Your task to perform on an android device: turn off notifications settings in the gmail app Image 0: 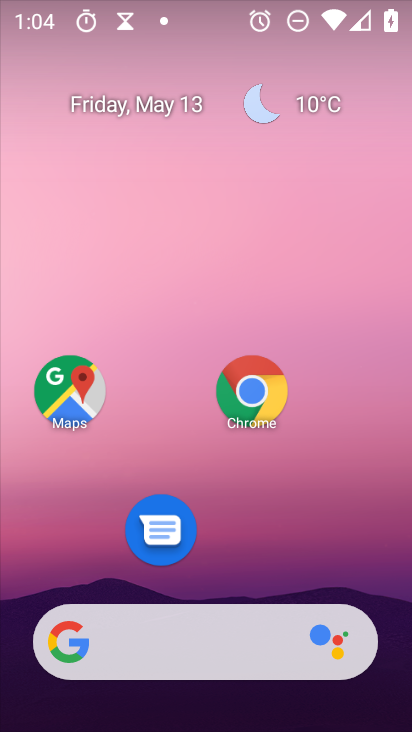
Step 0: press home button
Your task to perform on an android device: turn off notifications settings in the gmail app Image 1: 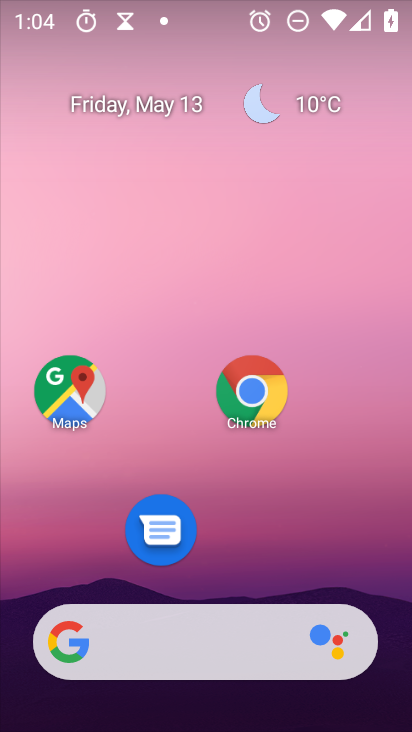
Step 1: drag from (150, 638) to (306, 154)
Your task to perform on an android device: turn off notifications settings in the gmail app Image 2: 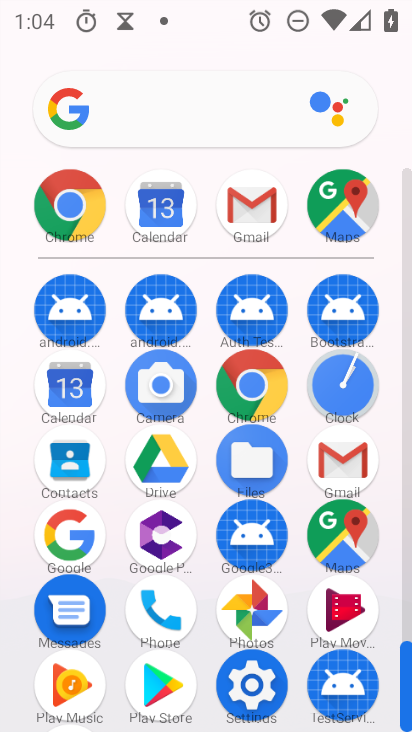
Step 2: click (265, 220)
Your task to perform on an android device: turn off notifications settings in the gmail app Image 3: 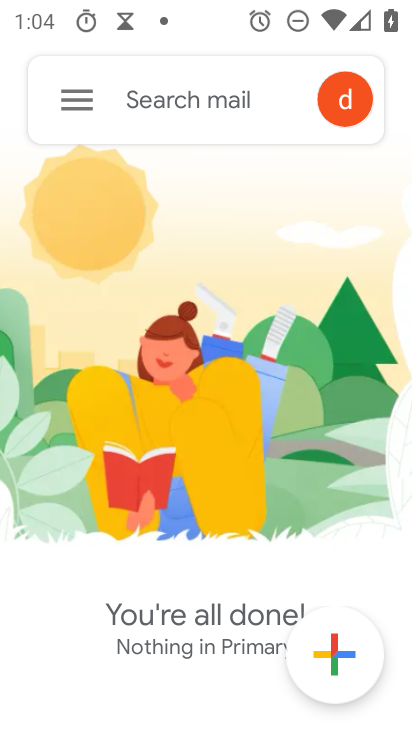
Step 3: click (65, 101)
Your task to perform on an android device: turn off notifications settings in the gmail app Image 4: 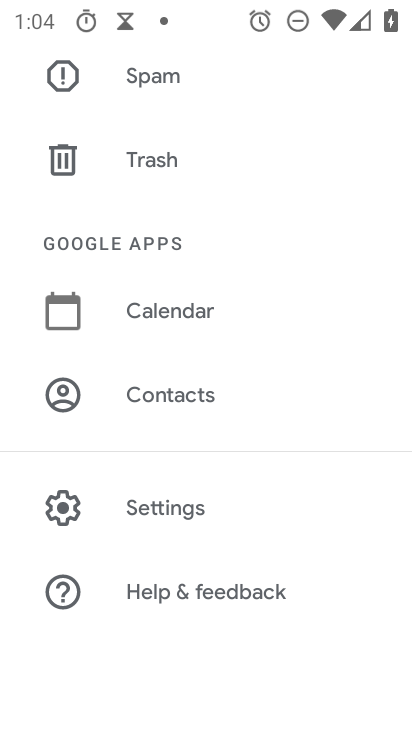
Step 4: click (177, 509)
Your task to perform on an android device: turn off notifications settings in the gmail app Image 5: 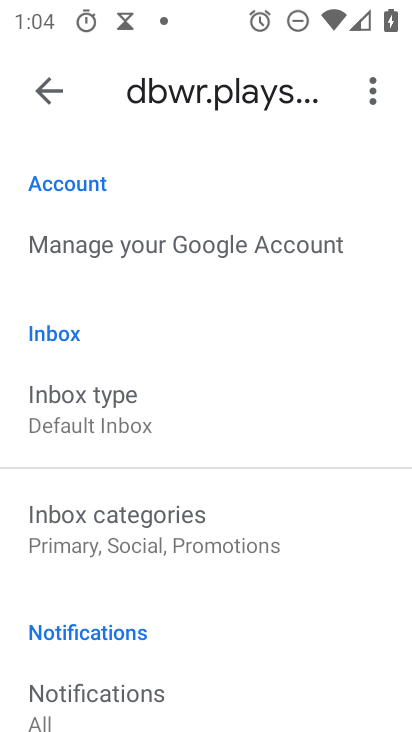
Step 5: drag from (177, 559) to (337, 277)
Your task to perform on an android device: turn off notifications settings in the gmail app Image 6: 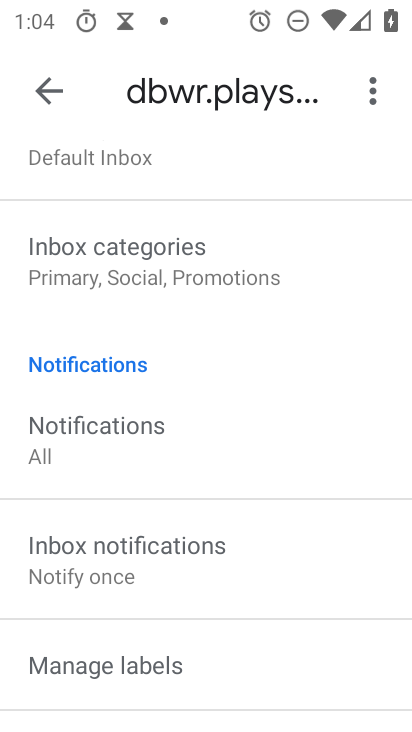
Step 6: click (91, 433)
Your task to perform on an android device: turn off notifications settings in the gmail app Image 7: 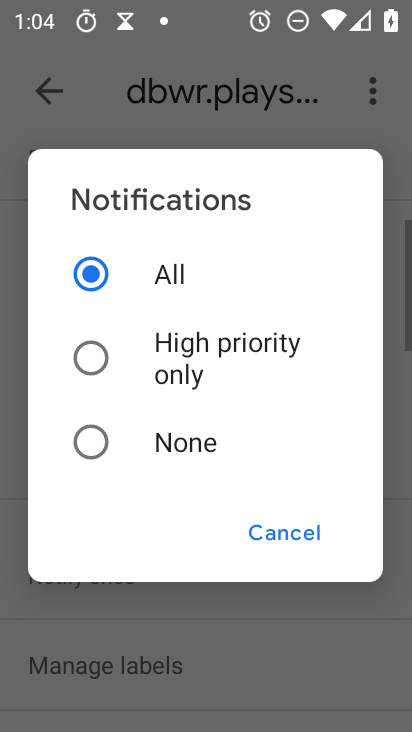
Step 7: click (92, 428)
Your task to perform on an android device: turn off notifications settings in the gmail app Image 8: 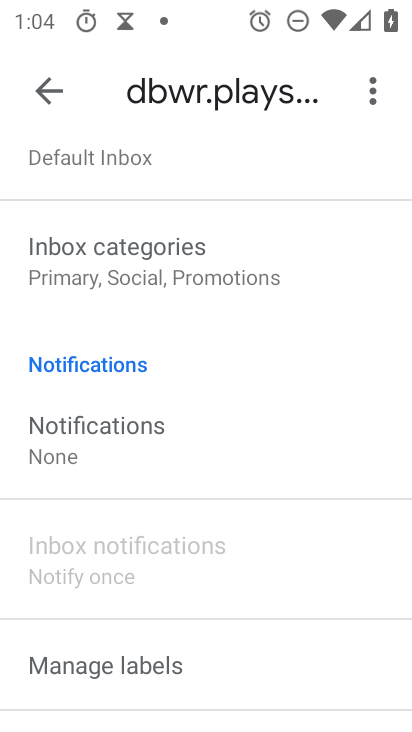
Step 8: task complete